Your task to perform on an android device: Go to wifi settings Image 0: 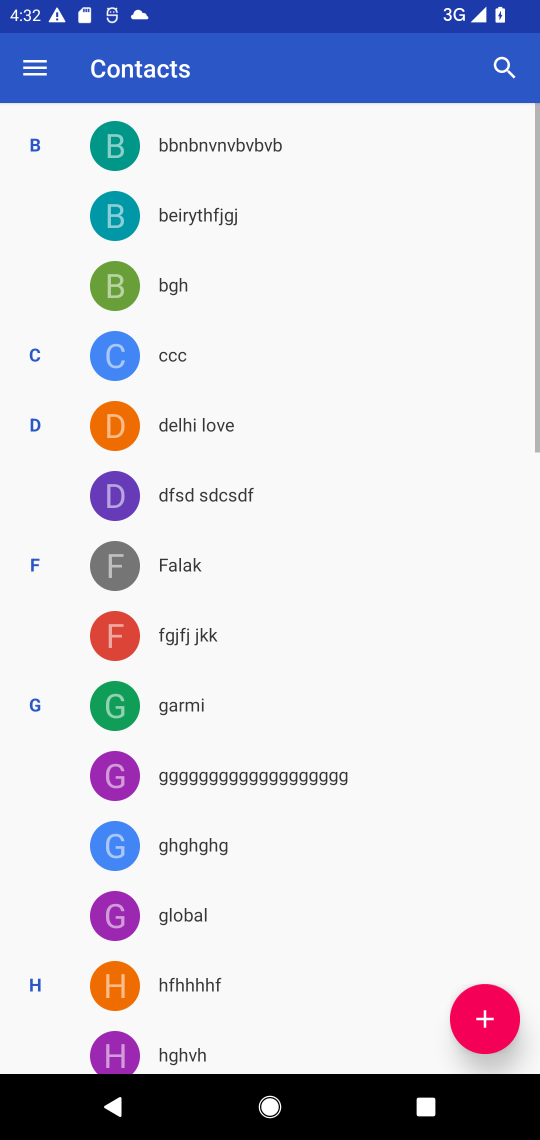
Step 0: press home button
Your task to perform on an android device: Go to wifi settings Image 1: 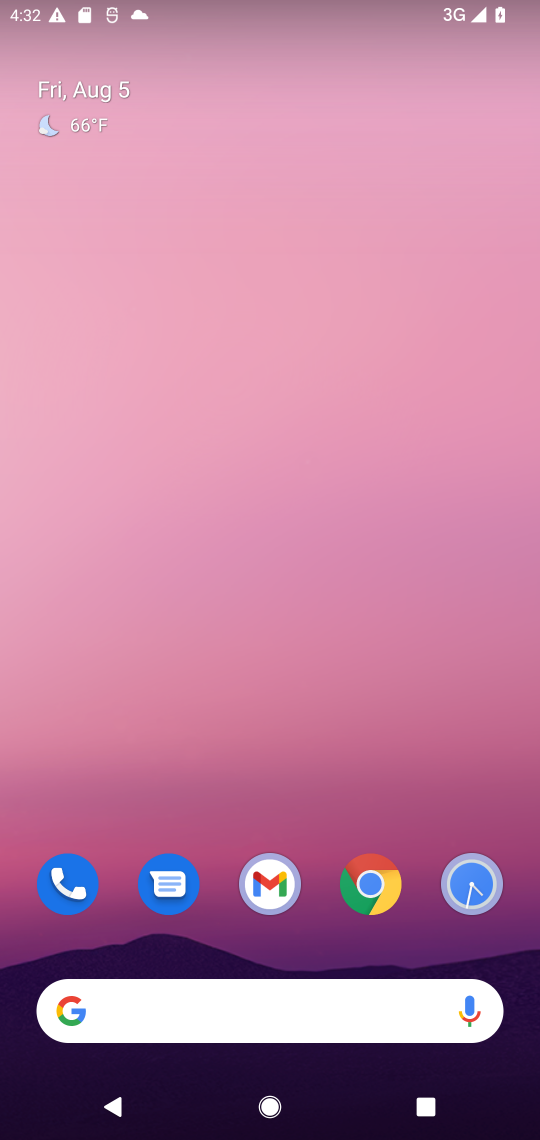
Step 1: drag from (417, 931) to (353, 0)
Your task to perform on an android device: Go to wifi settings Image 2: 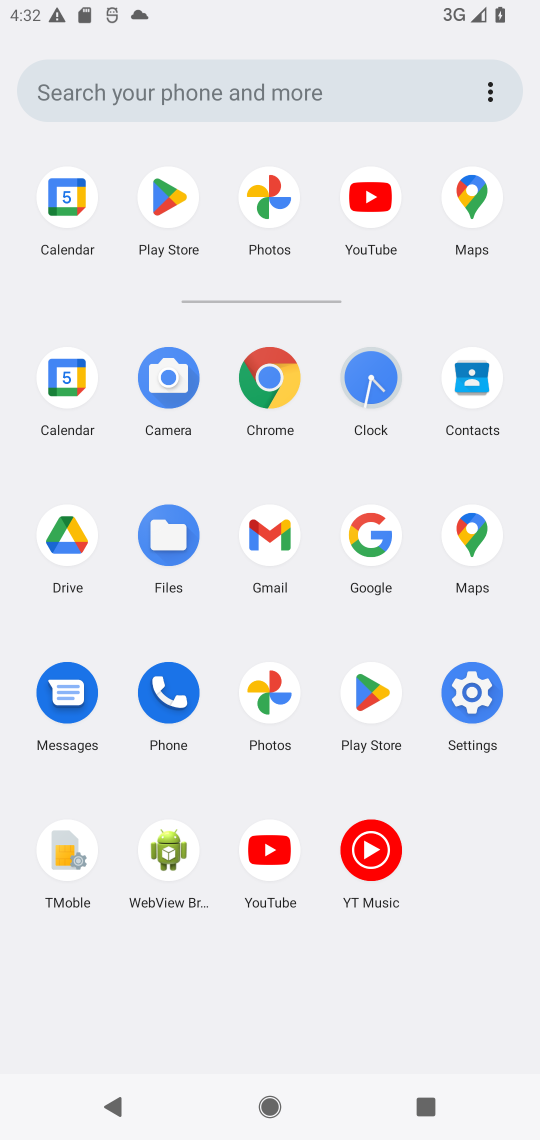
Step 2: click (454, 713)
Your task to perform on an android device: Go to wifi settings Image 3: 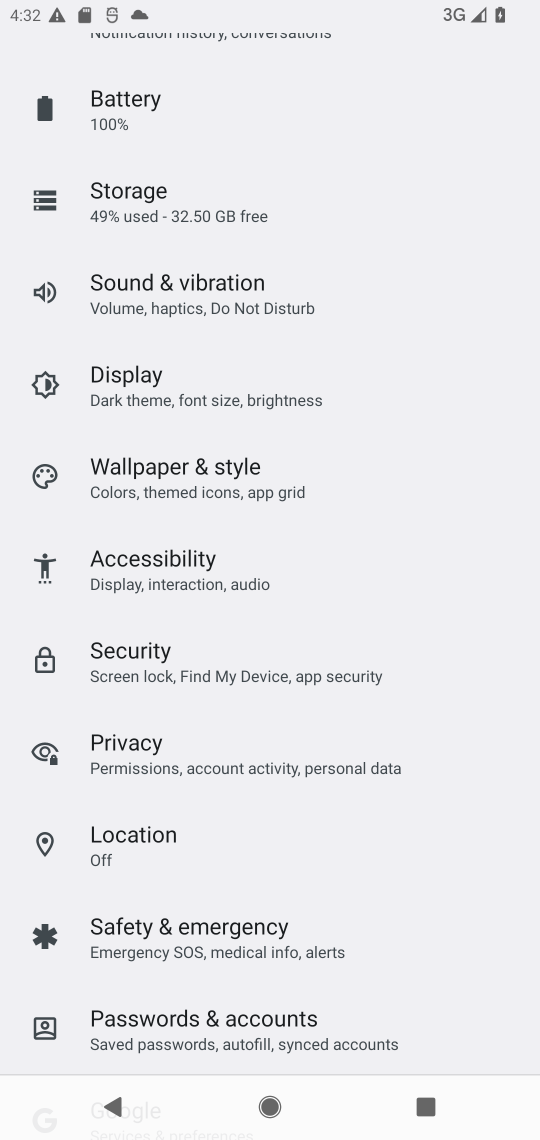
Step 3: drag from (209, 265) to (342, 1125)
Your task to perform on an android device: Go to wifi settings Image 4: 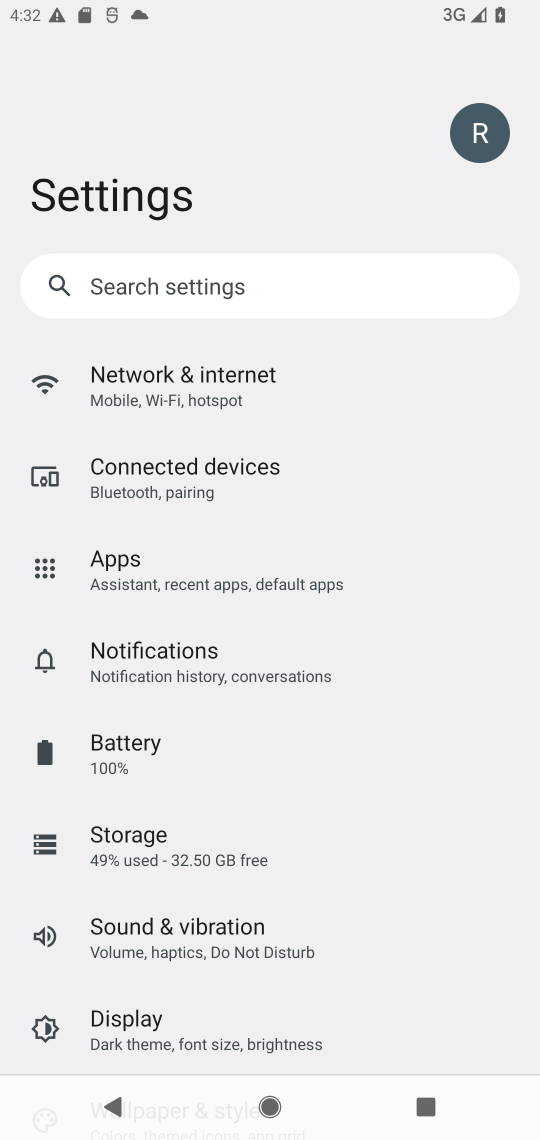
Step 4: click (203, 394)
Your task to perform on an android device: Go to wifi settings Image 5: 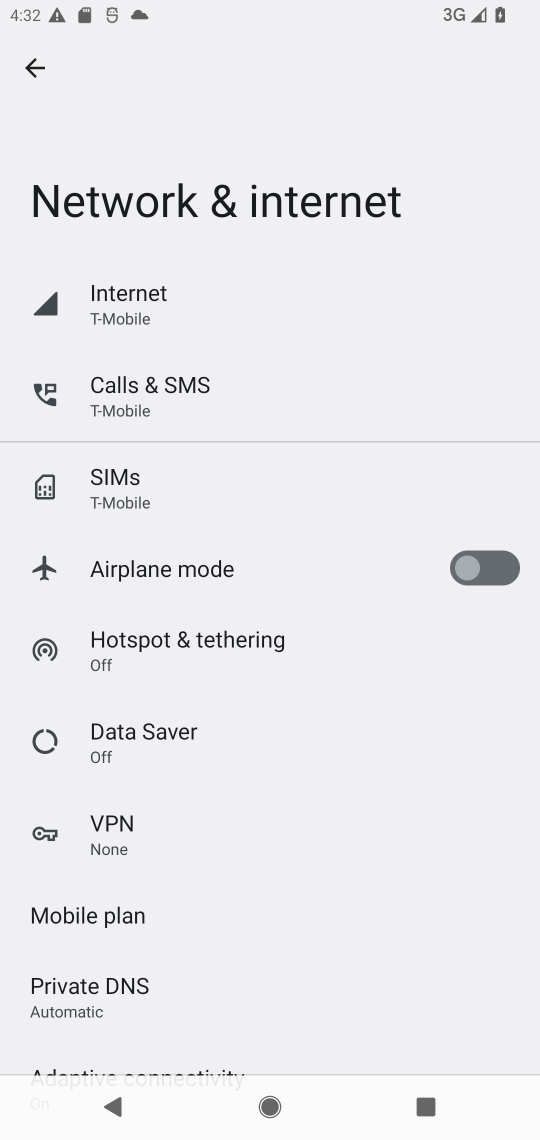
Step 5: task complete